Your task to perform on an android device: Open Yahoo.com Image 0: 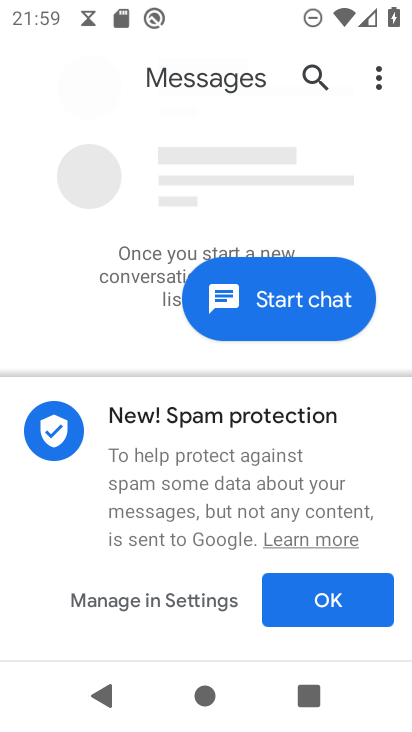
Step 0: press home button
Your task to perform on an android device: Open Yahoo.com Image 1: 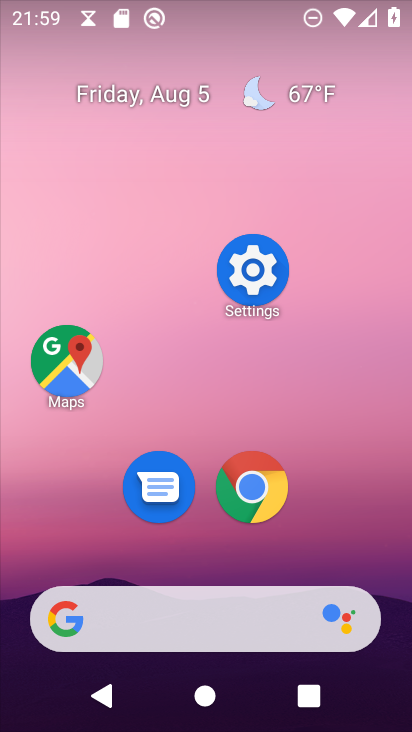
Step 1: click (260, 495)
Your task to perform on an android device: Open Yahoo.com Image 2: 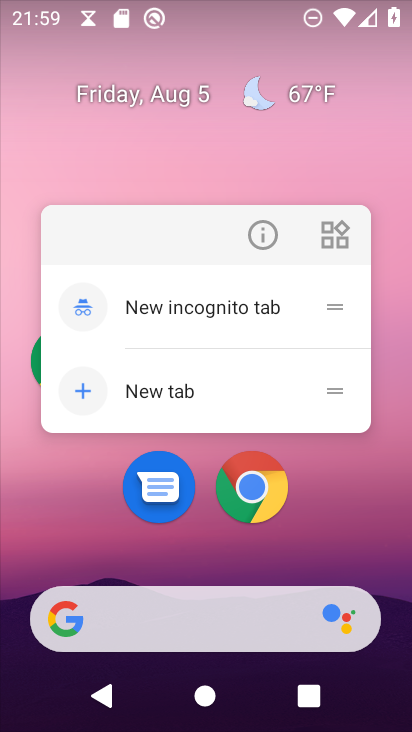
Step 2: click (253, 488)
Your task to perform on an android device: Open Yahoo.com Image 3: 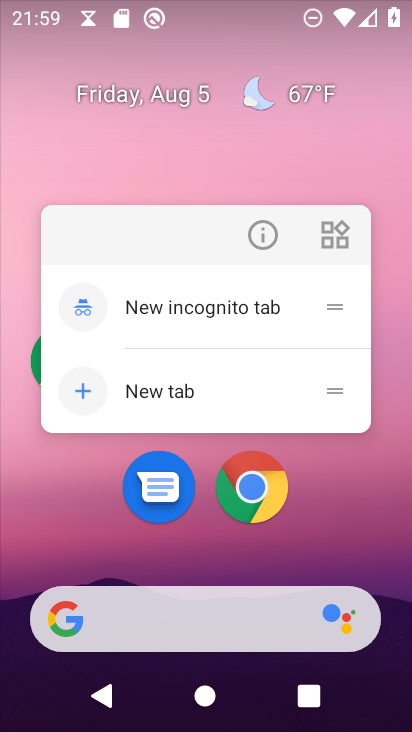
Step 3: click (253, 488)
Your task to perform on an android device: Open Yahoo.com Image 4: 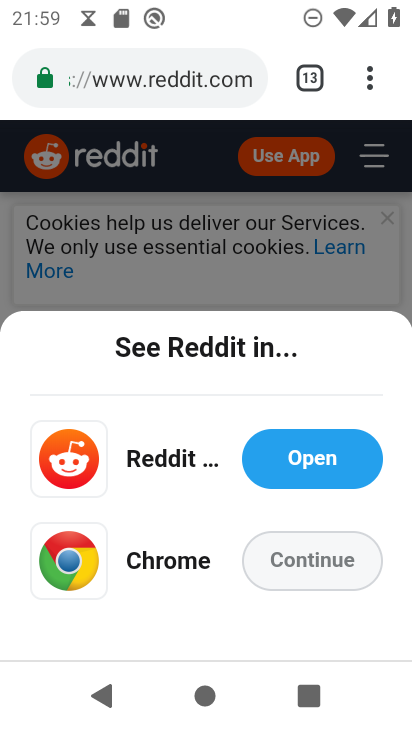
Step 4: drag from (371, 77) to (127, 160)
Your task to perform on an android device: Open Yahoo.com Image 5: 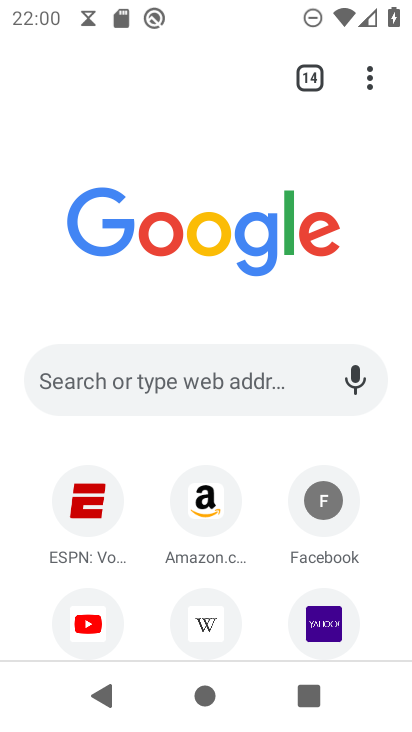
Step 5: click (329, 625)
Your task to perform on an android device: Open Yahoo.com Image 6: 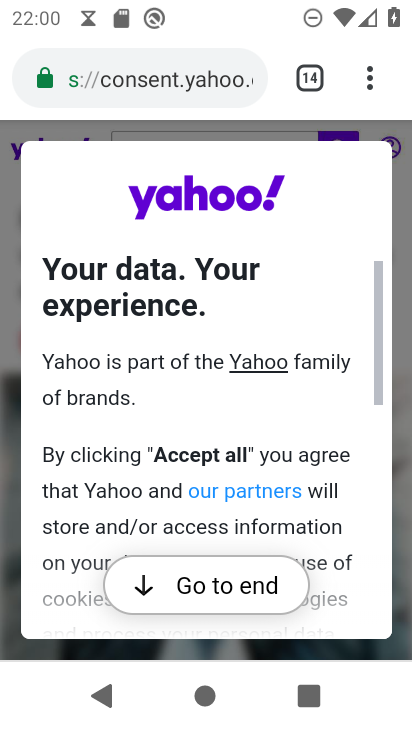
Step 6: click (249, 586)
Your task to perform on an android device: Open Yahoo.com Image 7: 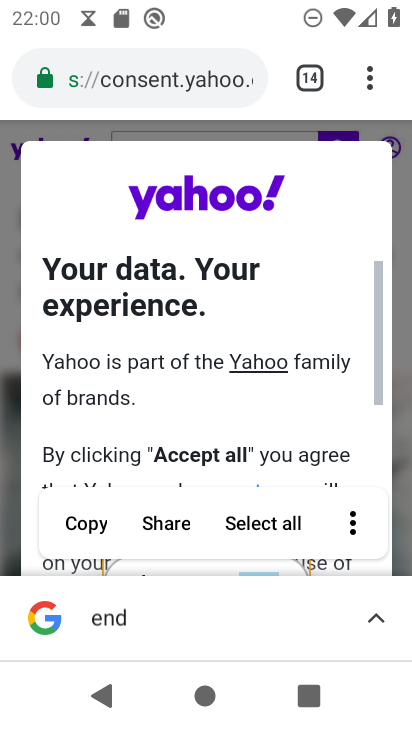
Step 7: drag from (274, 349) to (320, 141)
Your task to perform on an android device: Open Yahoo.com Image 8: 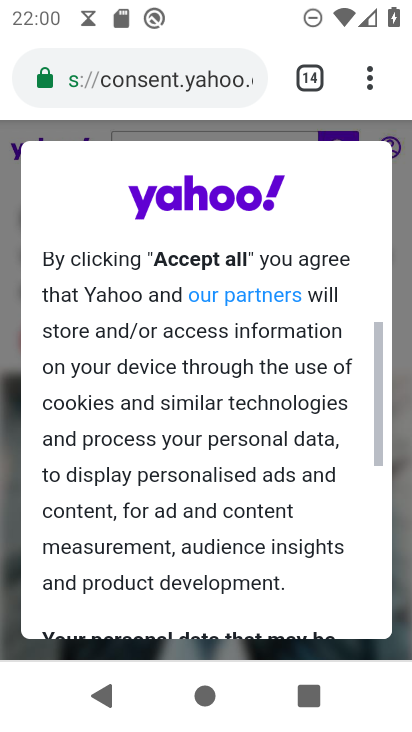
Step 8: drag from (258, 460) to (298, 123)
Your task to perform on an android device: Open Yahoo.com Image 9: 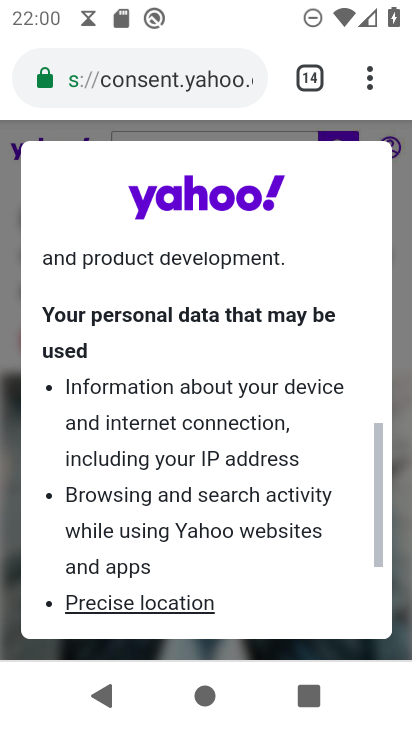
Step 9: drag from (246, 557) to (288, 221)
Your task to perform on an android device: Open Yahoo.com Image 10: 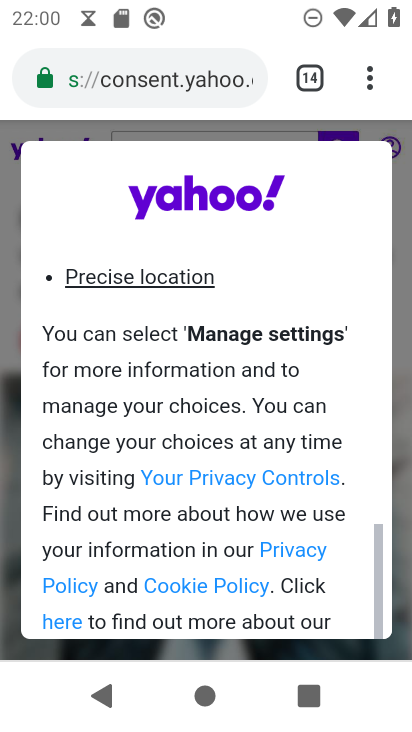
Step 10: drag from (169, 539) to (251, 141)
Your task to perform on an android device: Open Yahoo.com Image 11: 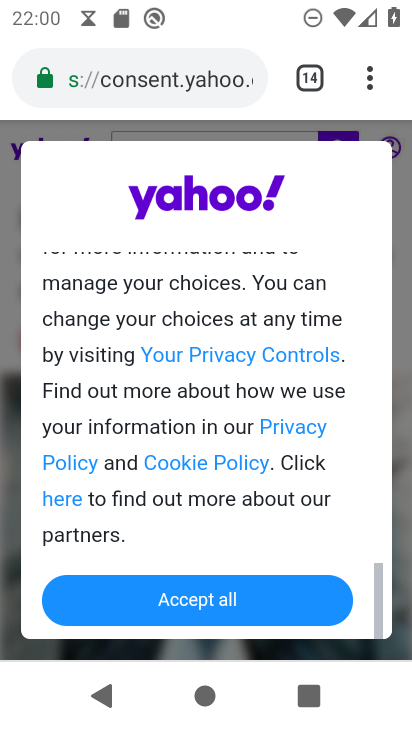
Step 11: click (213, 600)
Your task to perform on an android device: Open Yahoo.com Image 12: 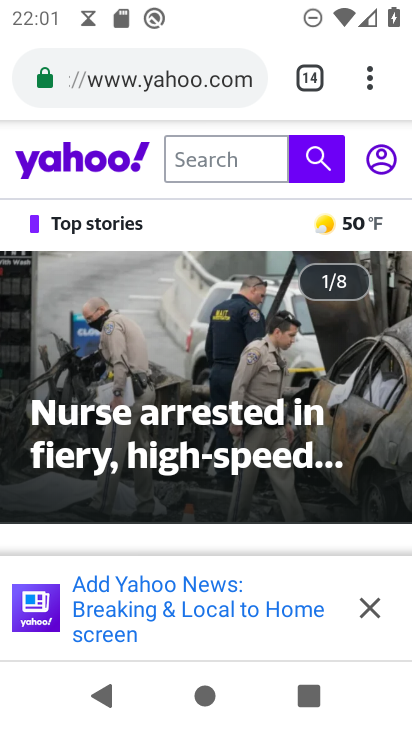
Step 12: task complete